Your task to perform on an android device: Open battery settings Image 0: 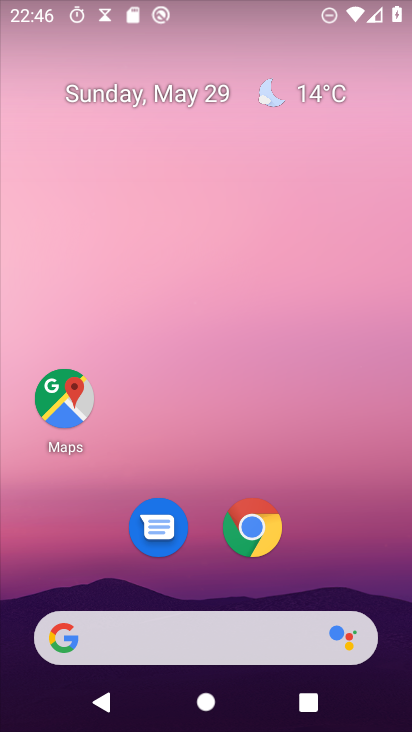
Step 0: drag from (197, 632) to (323, 4)
Your task to perform on an android device: Open battery settings Image 1: 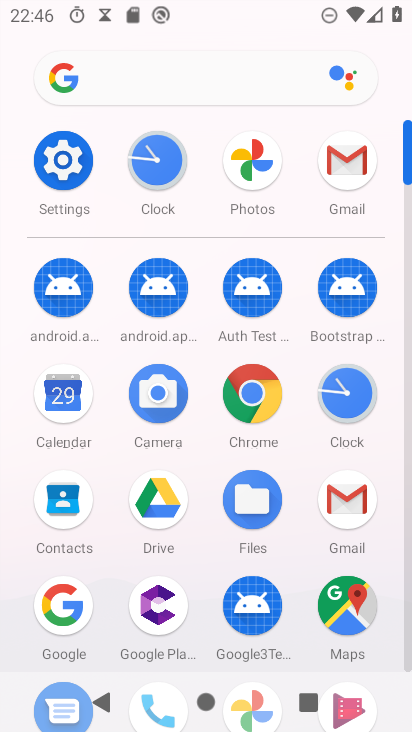
Step 1: click (66, 162)
Your task to perform on an android device: Open battery settings Image 2: 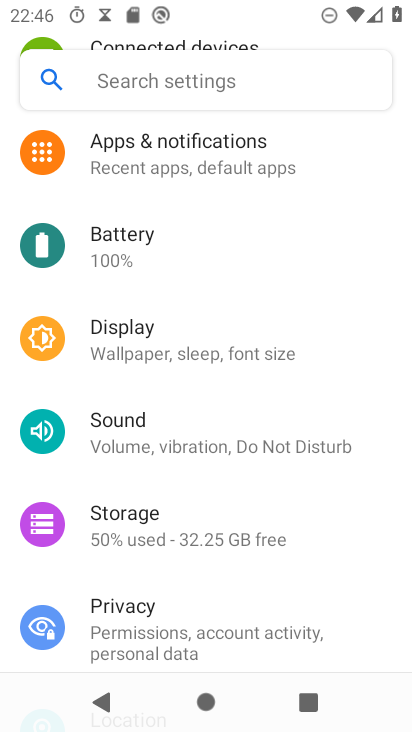
Step 2: click (116, 244)
Your task to perform on an android device: Open battery settings Image 3: 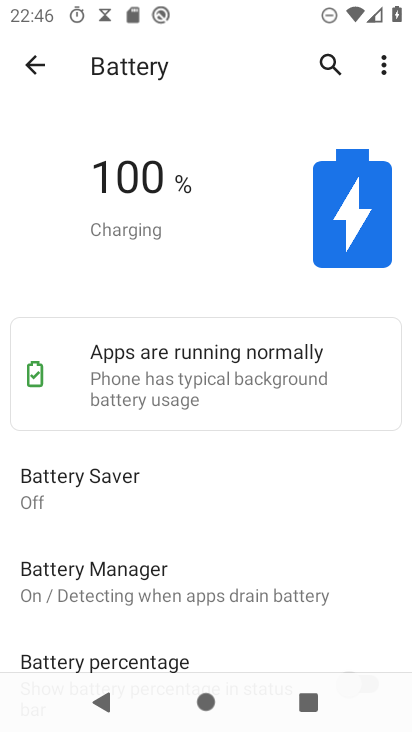
Step 3: task complete